Your task to perform on an android device: Open Google Chrome and open the bookmarks view Image 0: 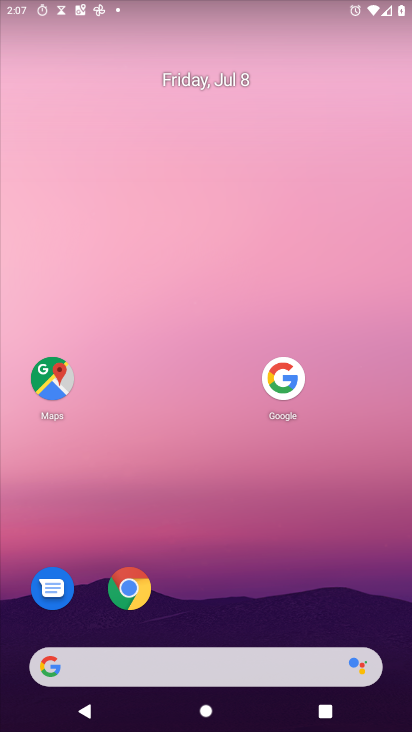
Step 0: click (124, 590)
Your task to perform on an android device: Open Google Chrome and open the bookmarks view Image 1: 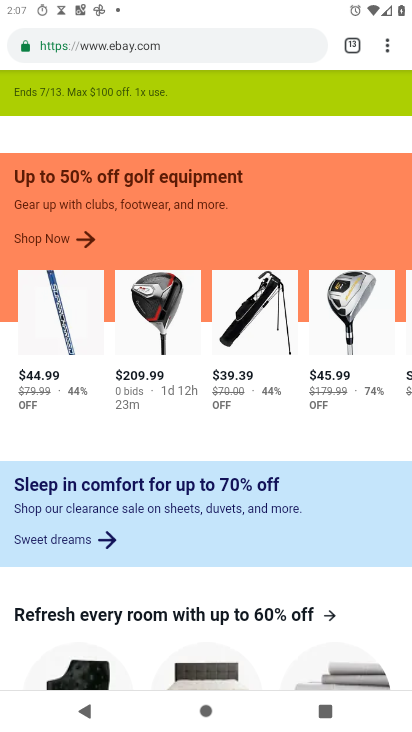
Step 1: click (141, 596)
Your task to perform on an android device: Open Google Chrome and open the bookmarks view Image 2: 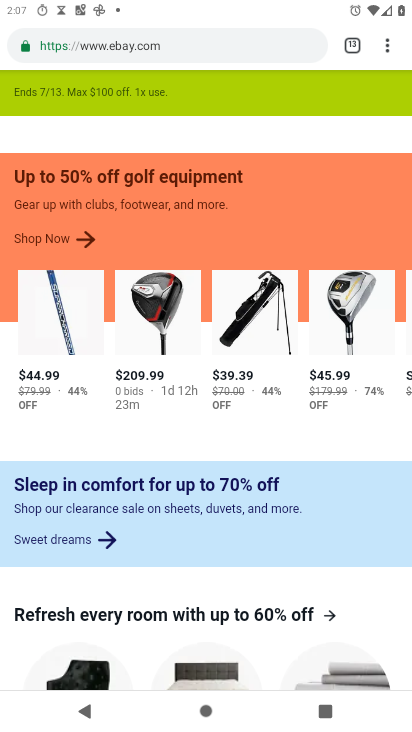
Step 2: click (119, 596)
Your task to perform on an android device: Open Google Chrome and open the bookmarks view Image 3: 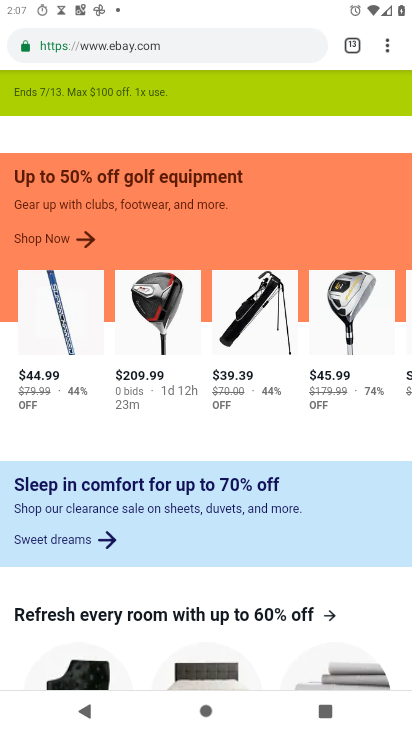
Step 3: task complete